Your task to perform on an android device: What's the weather today? Image 0: 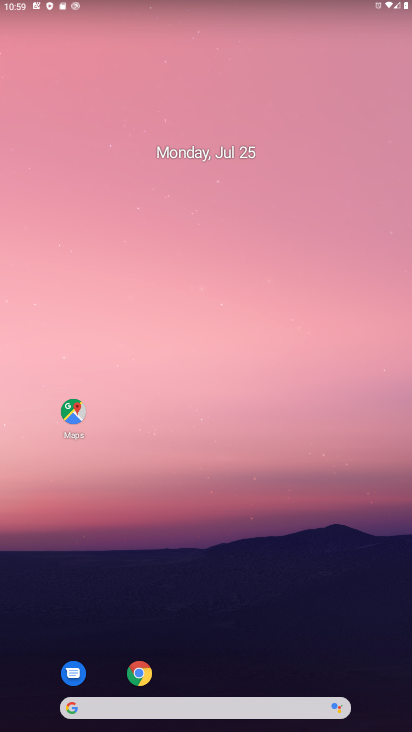
Step 0: press home button
Your task to perform on an android device: What's the weather today? Image 1: 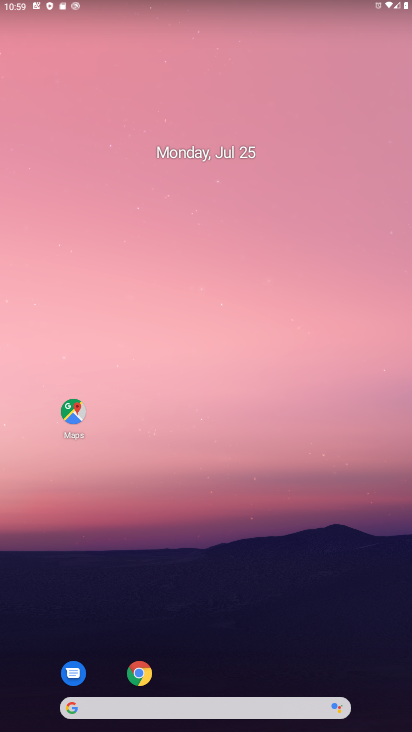
Step 1: click (176, 704)
Your task to perform on an android device: What's the weather today? Image 2: 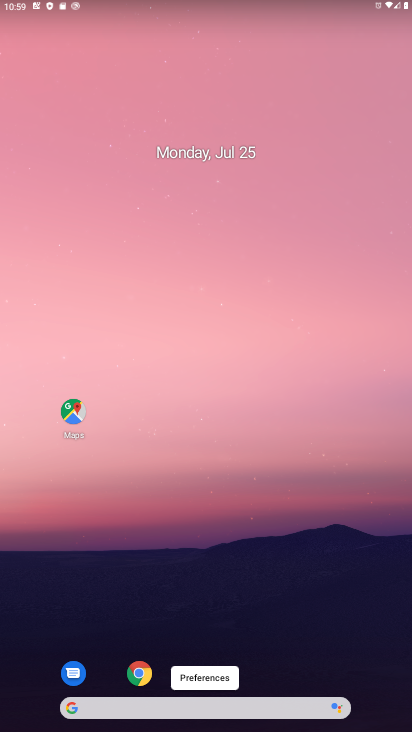
Step 2: click (158, 703)
Your task to perform on an android device: What's the weather today? Image 3: 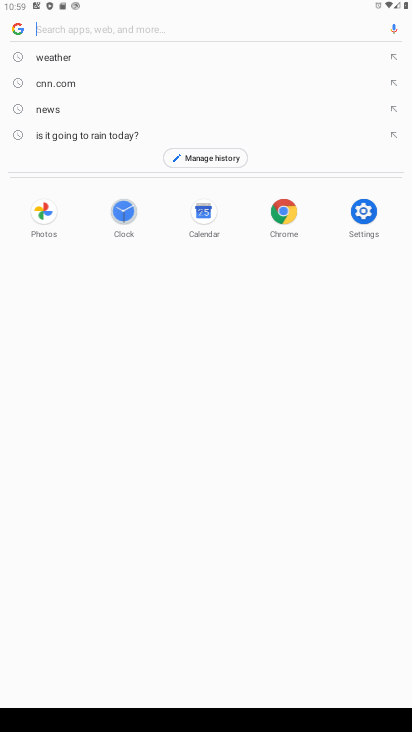
Step 3: click (79, 50)
Your task to perform on an android device: What's the weather today? Image 4: 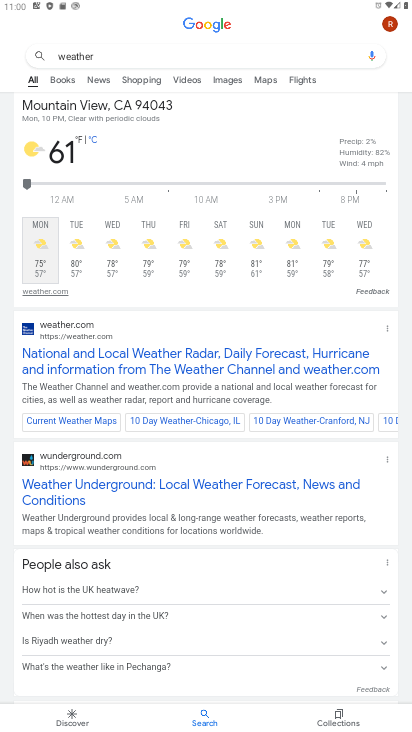
Step 4: click (38, 254)
Your task to perform on an android device: What's the weather today? Image 5: 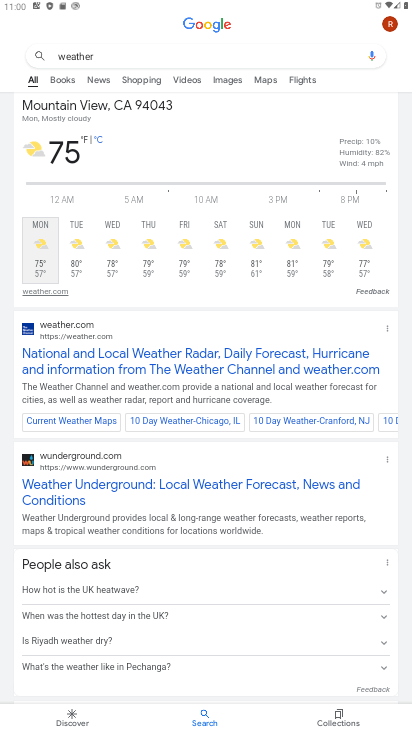
Step 5: task complete